Your task to perform on an android device: Toggle the flashlight Image 0: 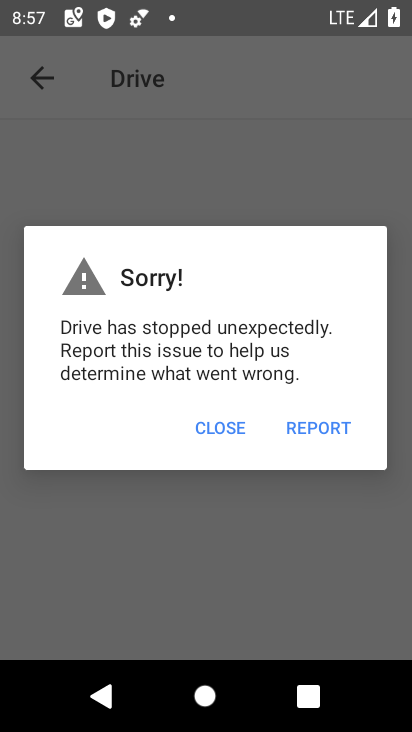
Step 0: click (212, 427)
Your task to perform on an android device: Toggle the flashlight Image 1: 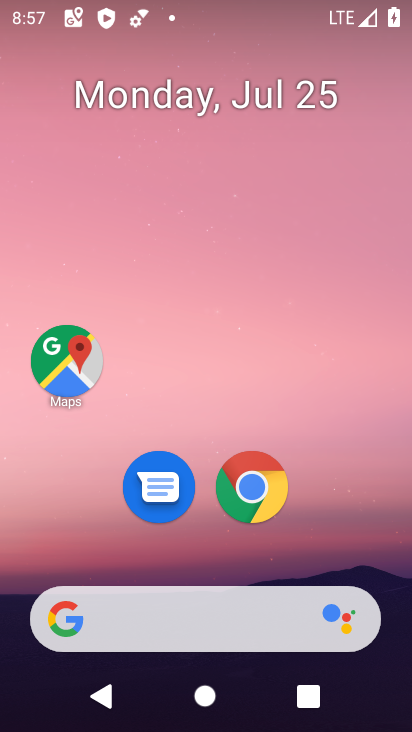
Step 1: drag from (155, 559) to (262, 10)
Your task to perform on an android device: Toggle the flashlight Image 2: 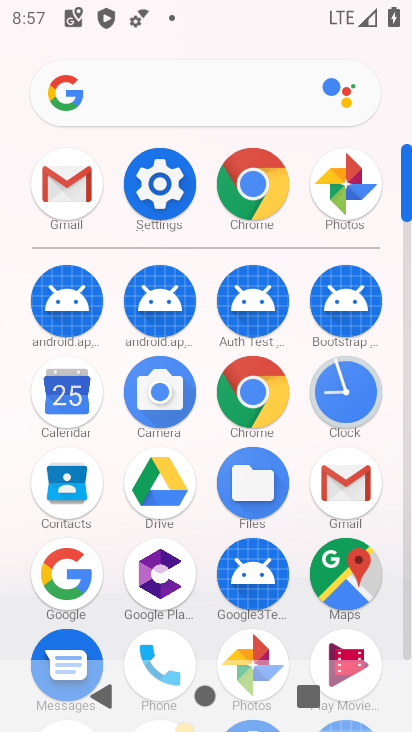
Step 2: click (174, 177)
Your task to perform on an android device: Toggle the flashlight Image 3: 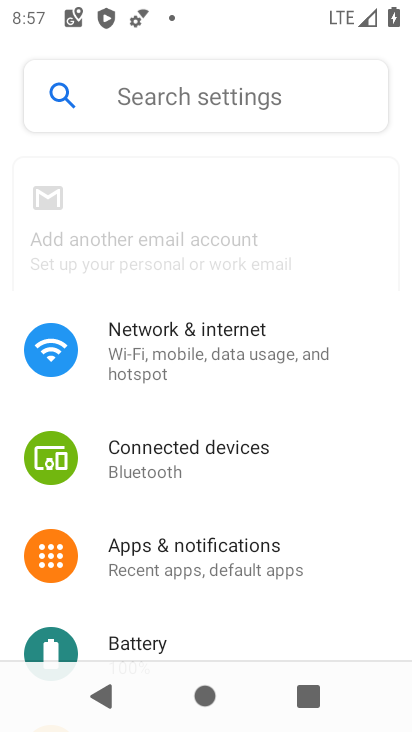
Step 3: click (154, 95)
Your task to perform on an android device: Toggle the flashlight Image 4: 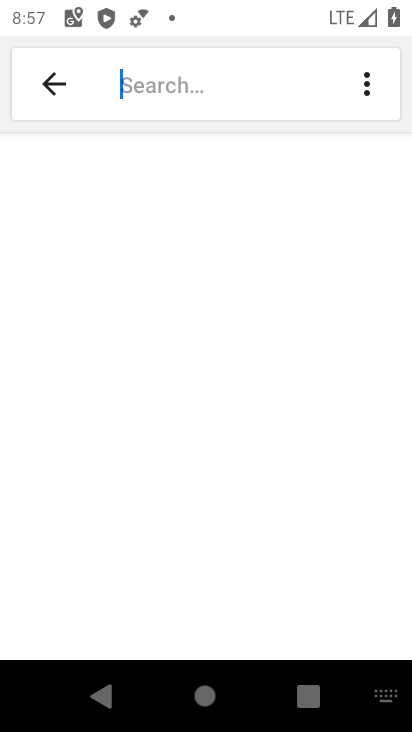
Step 4: type "flashlight"
Your task to perform on an android device: Toggle the flashlight Image 5: 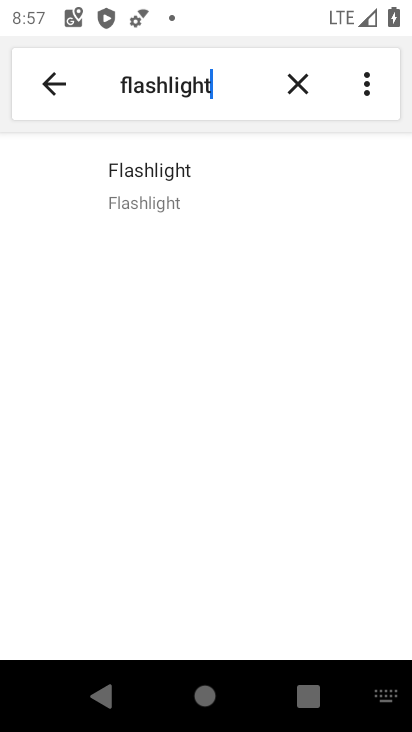
Step 5: click (199, 167)
Your task to perform on an android device: Toggle the flashlight Image 6: 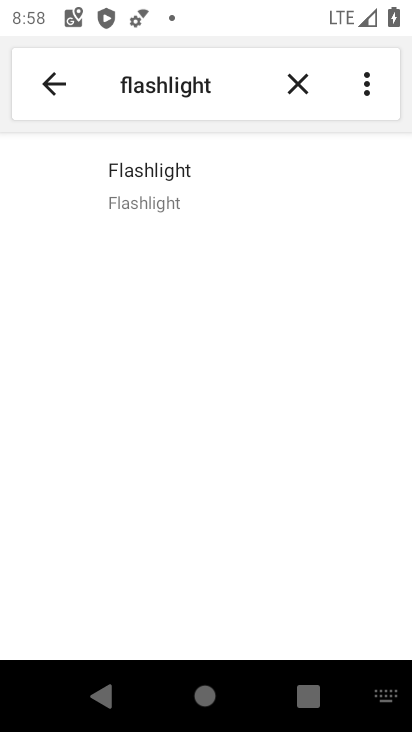
Step 6: click (172, 175)
Your task to perform on an android device: Toggle the flashlight Image 7: 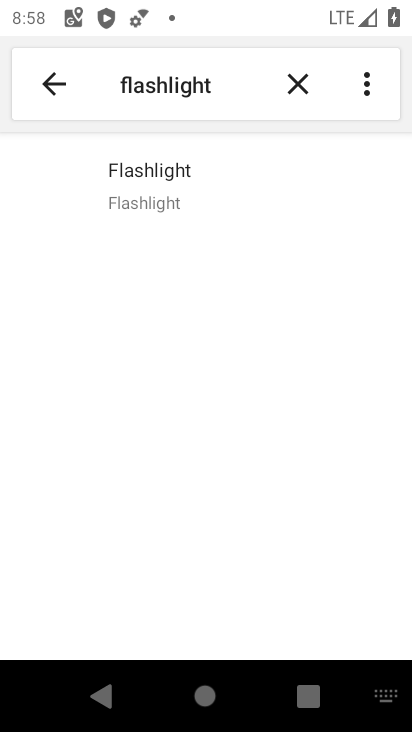
Step 7: task complete